Your task to perform on an android device: turn off picture-in-picture Image 0: 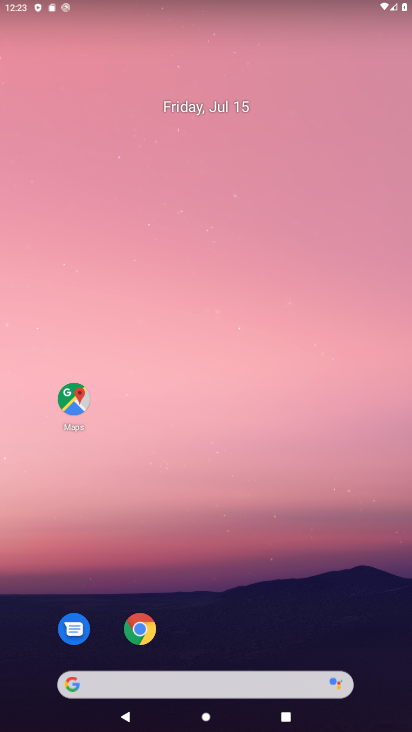
Step 0: click (136, 637)
Your task to perform on an android device: turn off picture-in-picture Image 1: 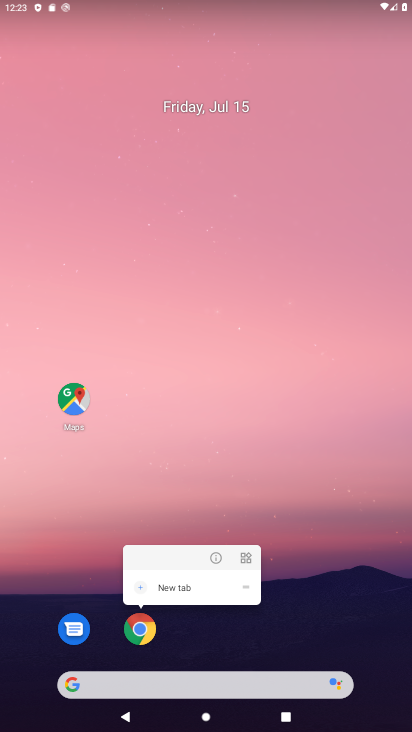
Step 1: click (213, 556)
Your task to perform on an android device: turn off picture-in-picture Image 2: 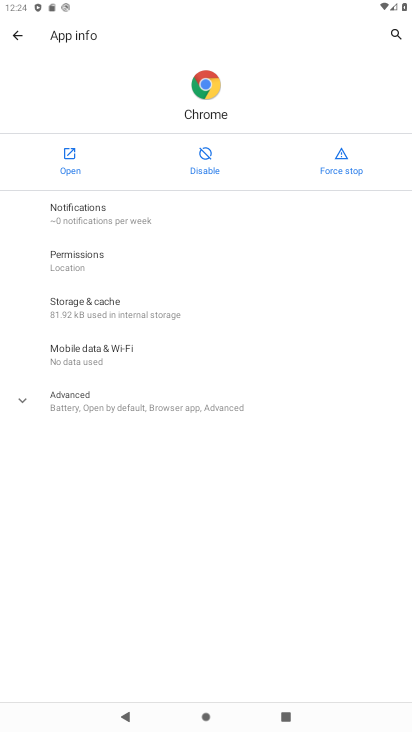
Step 2: click (107, 403)
Your task to perform on an android device: turn off picture-in-picture Image 3: 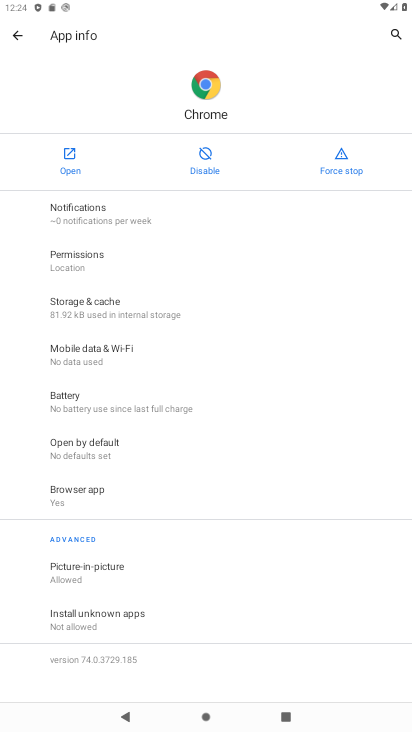
Step 3: click (94, 580)
Your task to perform on an android device: turn off picture-in-picture Image 4: 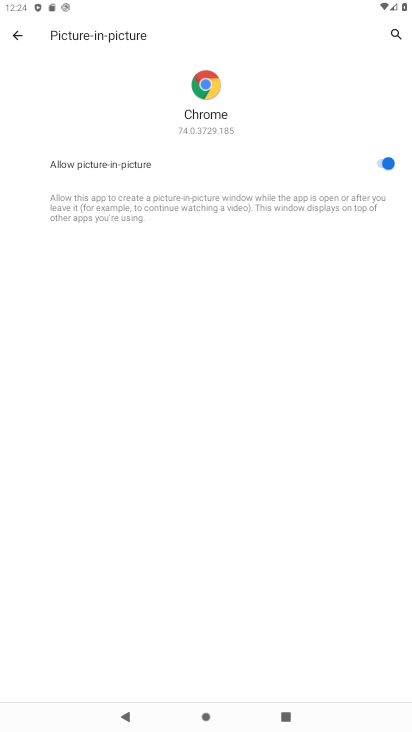
Step 4: click (369, 160)
Your task to perform on an android device: turn off picture-in-picture Image 5: 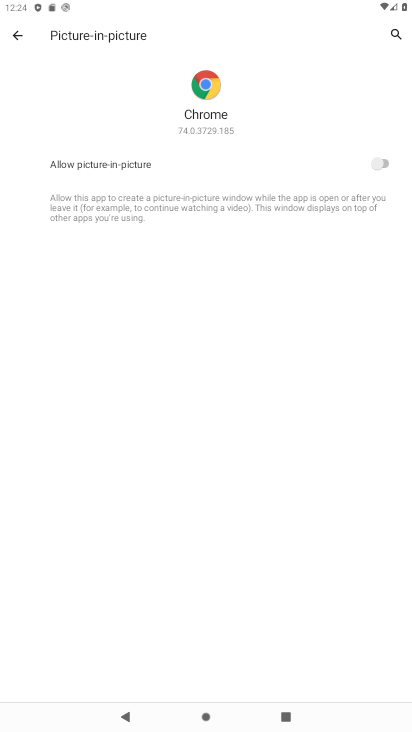
Step 5: task complete